Your task to perform on an android device: turn on notifications settings in the gmail app Image 0: 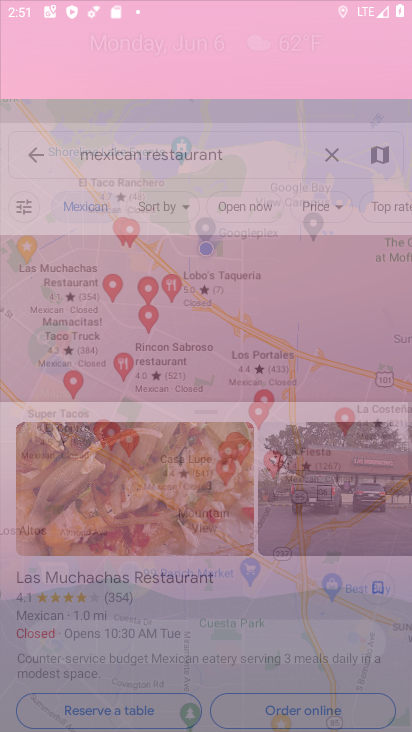
Step 0: drag from (348, 671) to (410, 207)
Your task to perform on an android device: turn on notifications settings in the gmail app Image 1: 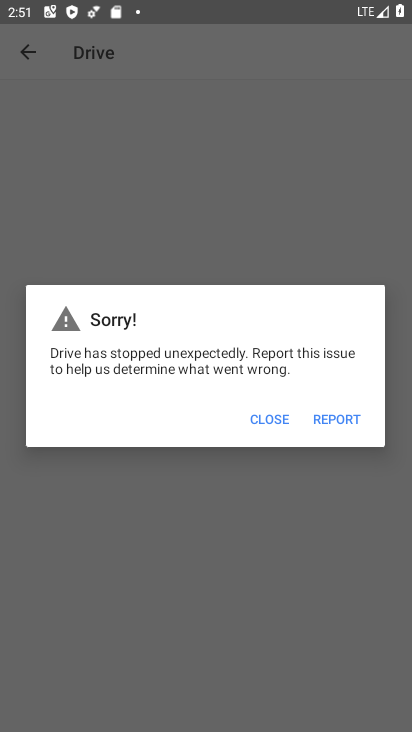
Step 1: press home button
Your task to perform on an android device: turn on notifications settings in the gmail app Image 2: 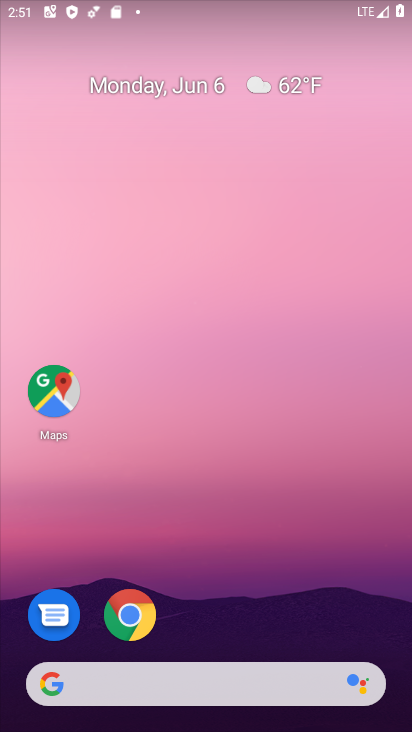
Step 2: drag from (277, 667) to (279, 76)
Your task to perform on an android device: turn on notifications settings in the gmail app Image 3: 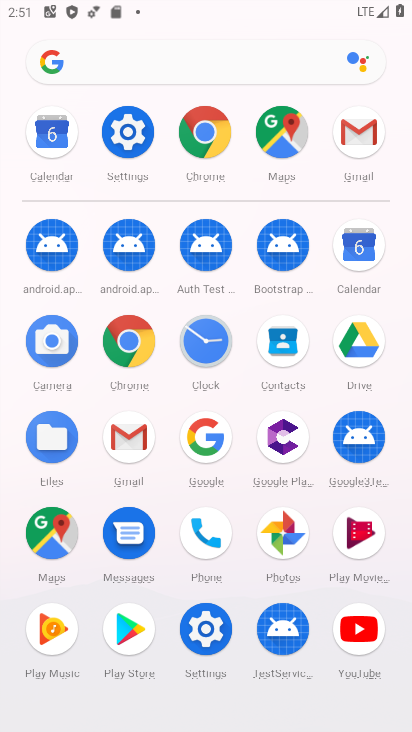
Step 3: click (127, 443)
Your task to perform on an android device: turn on notifications settings in the gmail app Image 4: 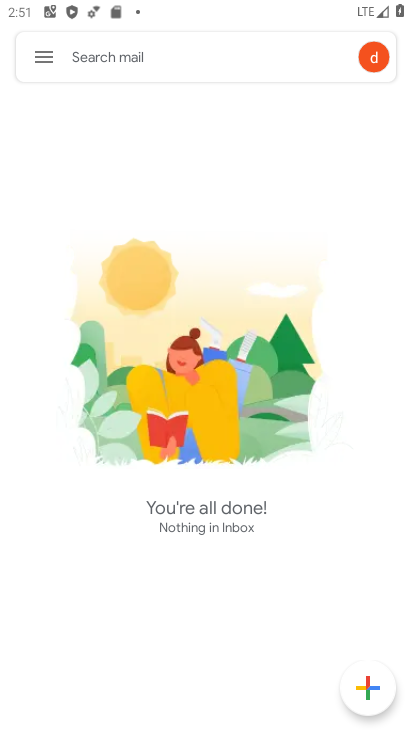
Step 4: click (34, 50)
Your task to perform on an android device: turn on notifications settings in the gmail app Image 5: 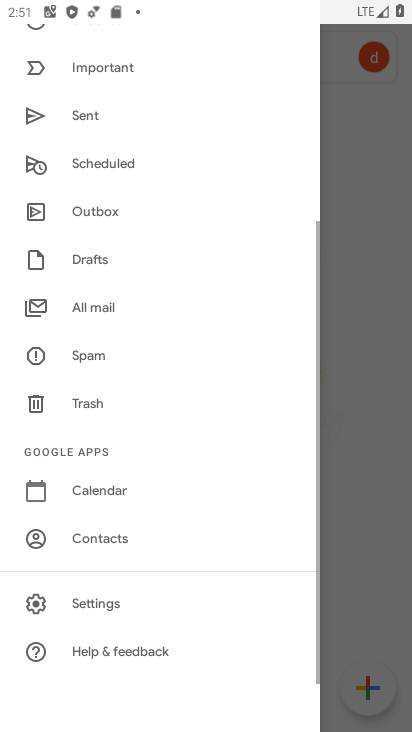
Step 5: click (135, 599)
Your task to perform on an android device: turn on notifications settings in the gmail app Image 6: 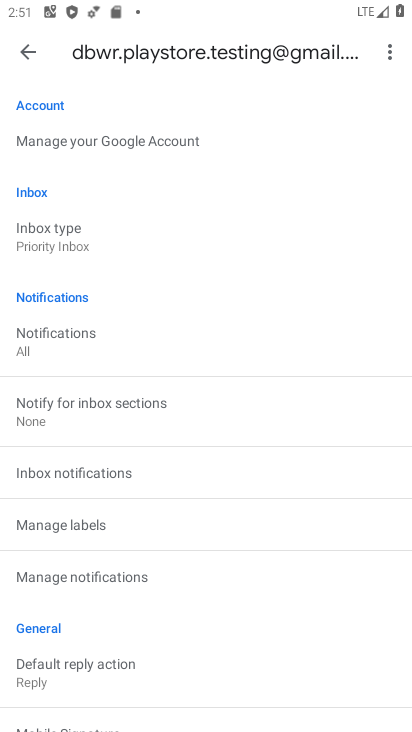
Step 6: click (112, 578)
Your task to perform on an android device: turn on notifications settings in the gmail app Image 7: 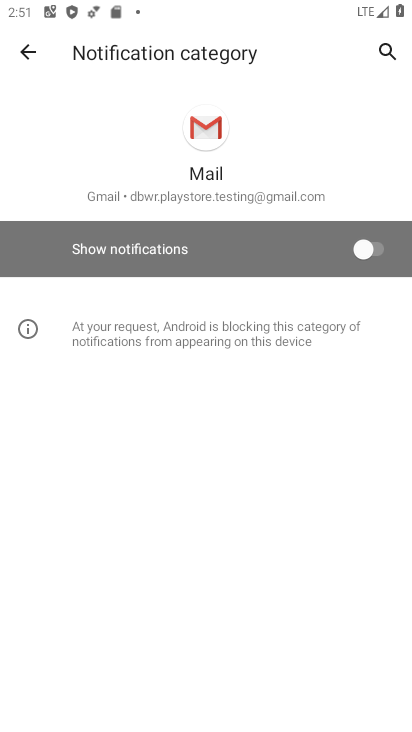
Step 7: click (370, 247)
Your task to perform on an android device: turn on notifications settings in the gmail app Image 8: 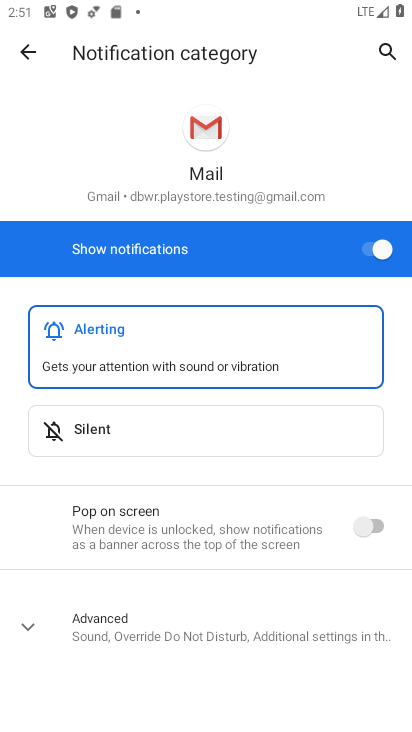
Step 8: task complete